Your task to perform on an android device: open app "Google Docs" (install if not already installed) Image 0: 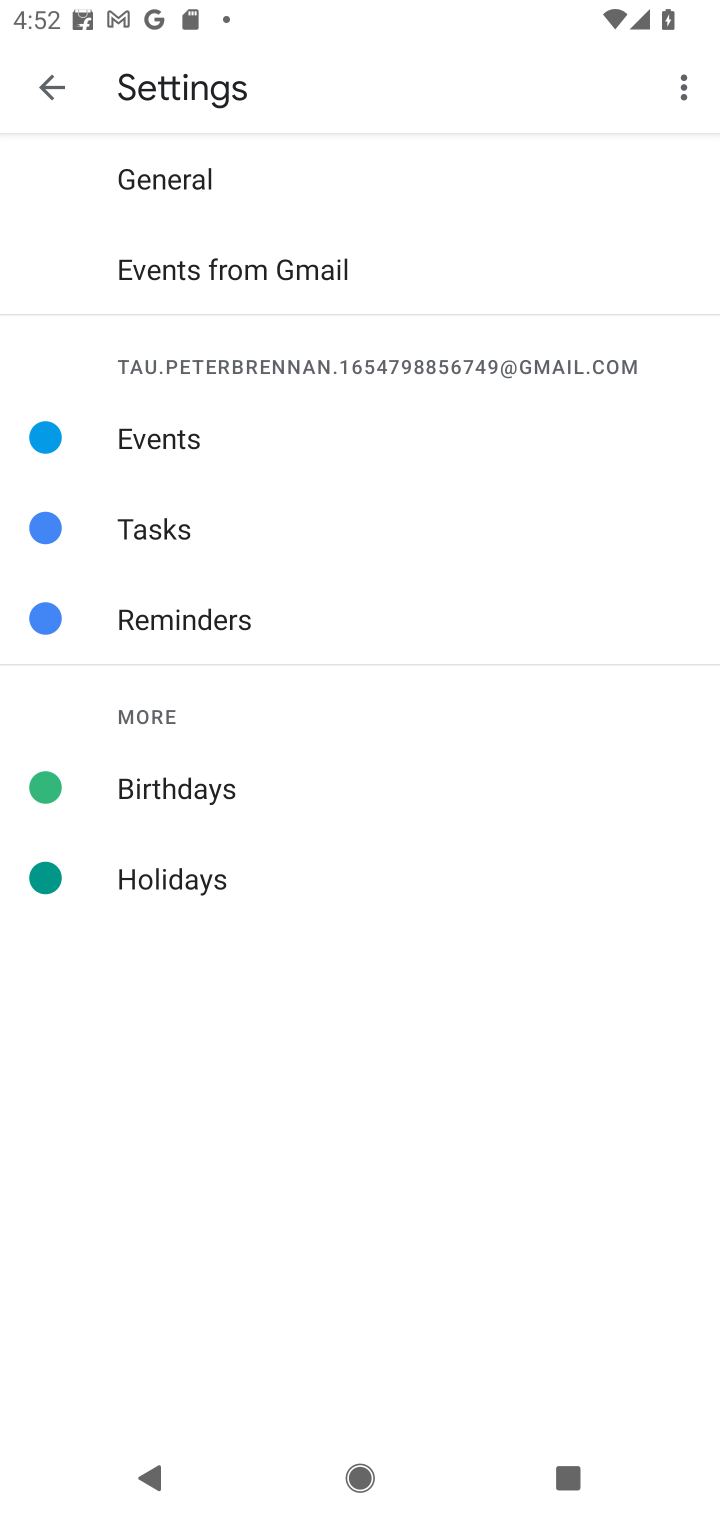
Step 0: press home button
Your task to perform on an android device: open app "Google Docs" (install if not already installed) Image 1: 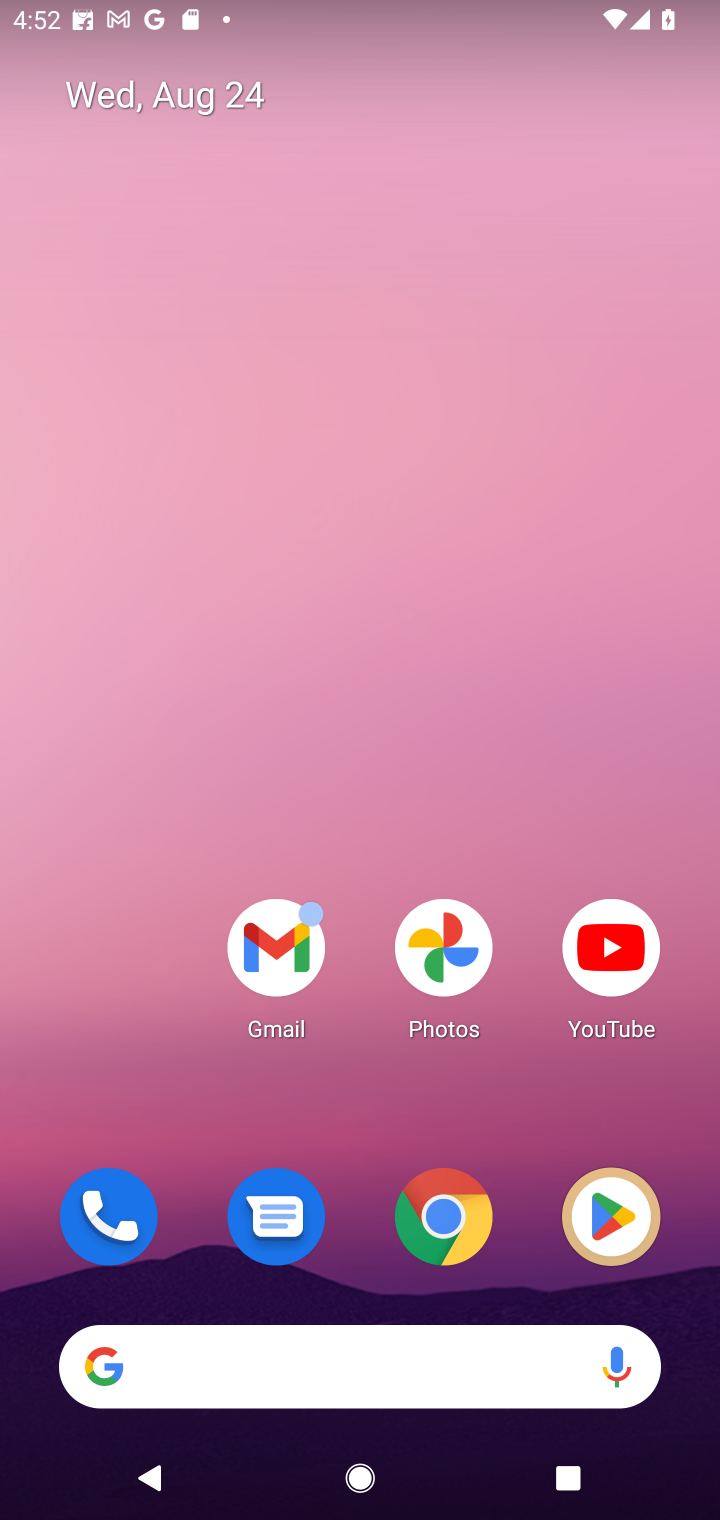
Step 1: click (604, 1238)
Your task to perform on an android device: open app "Google Docs" (install if not already installed) Image 2: 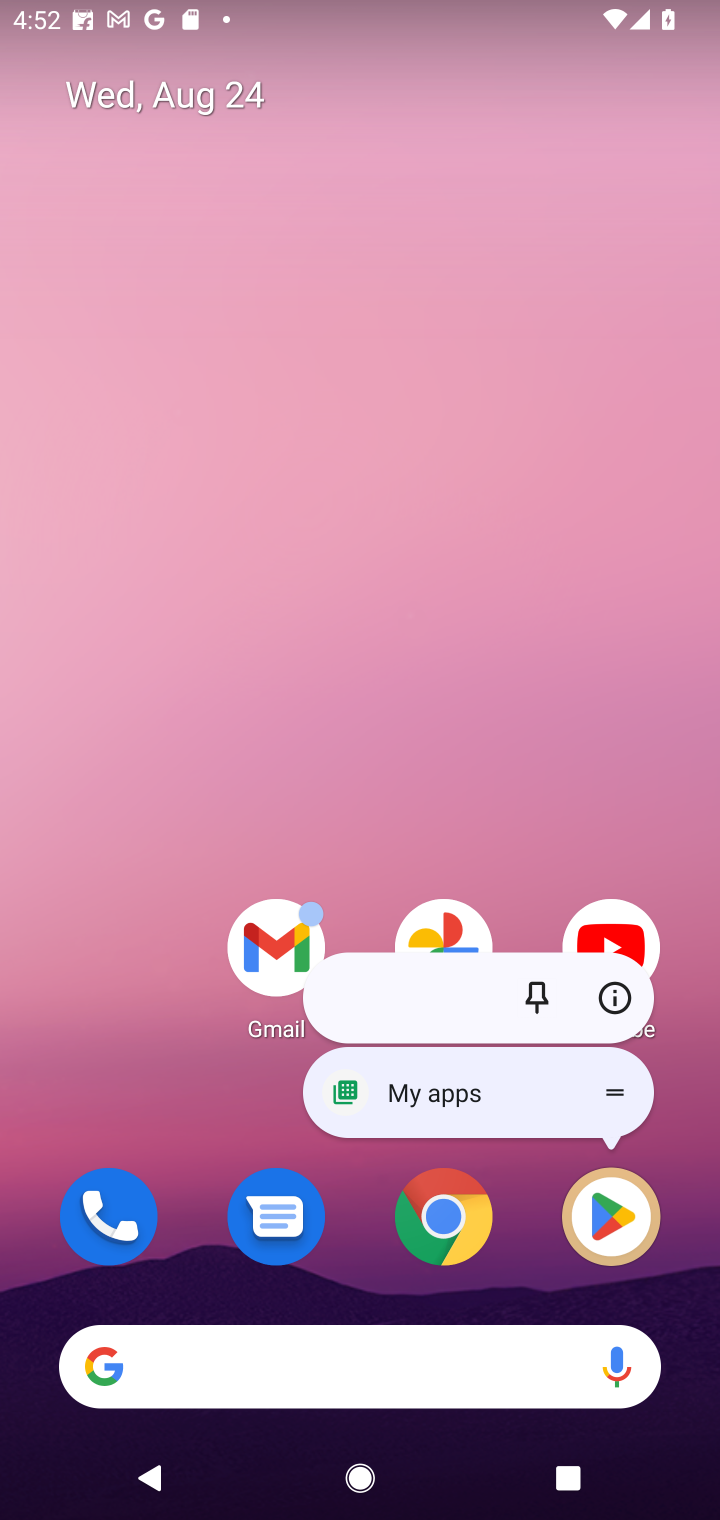
Step 2: click (647, 1233)
Your task to perform on an android device: open app "Google Docs" (install if not already installed) Image 3: 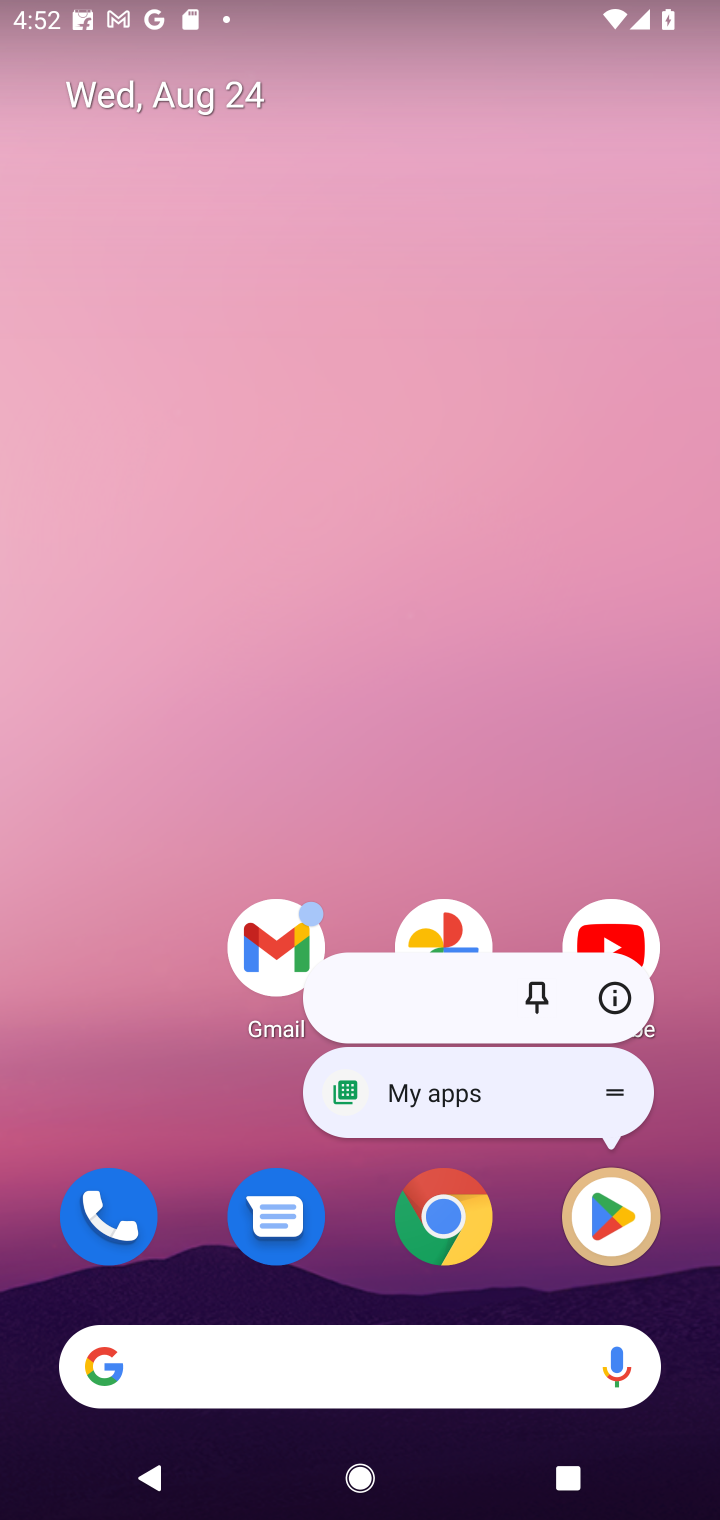
Step 3: click (602, 1215)
Your task to perform on an android device: open app "Google Docs" (install if not already installed) Image 4: 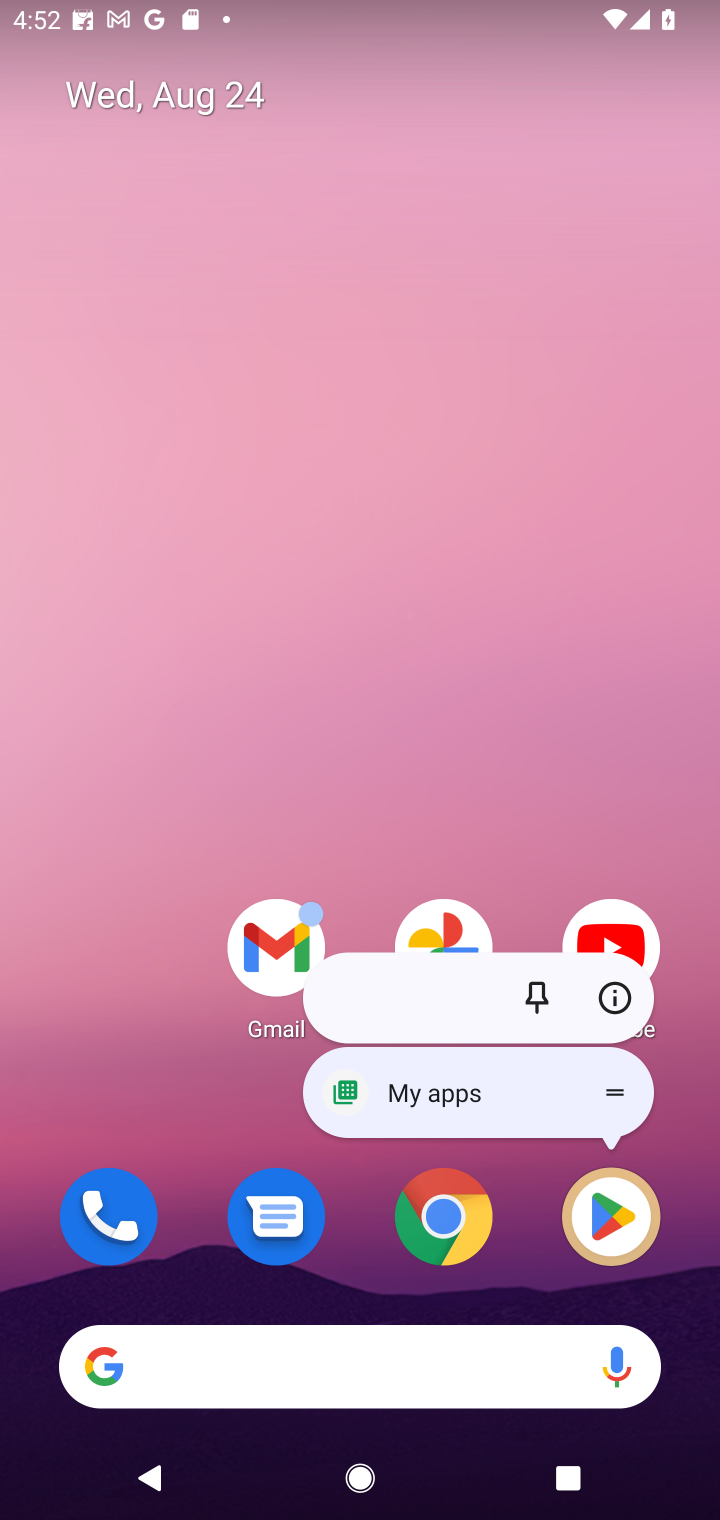
Step 4: click (602, 1215)
Your task to perform on an android device: open app "Google Docs" (install if not already installed) Image 5: 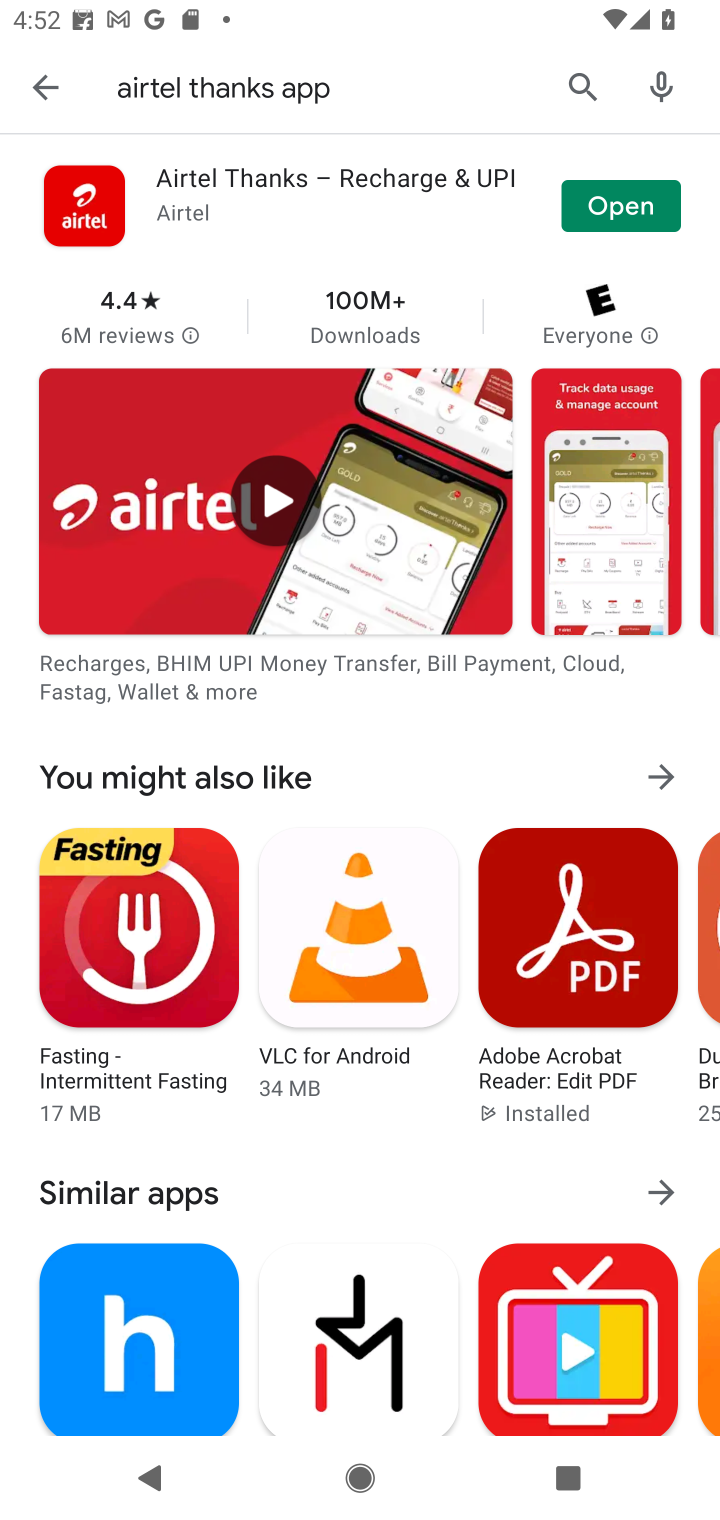
Step 5: click (581, 86)
Your task to perform on an android device: open app "Google Docs" (install if not already installed) Image 6: 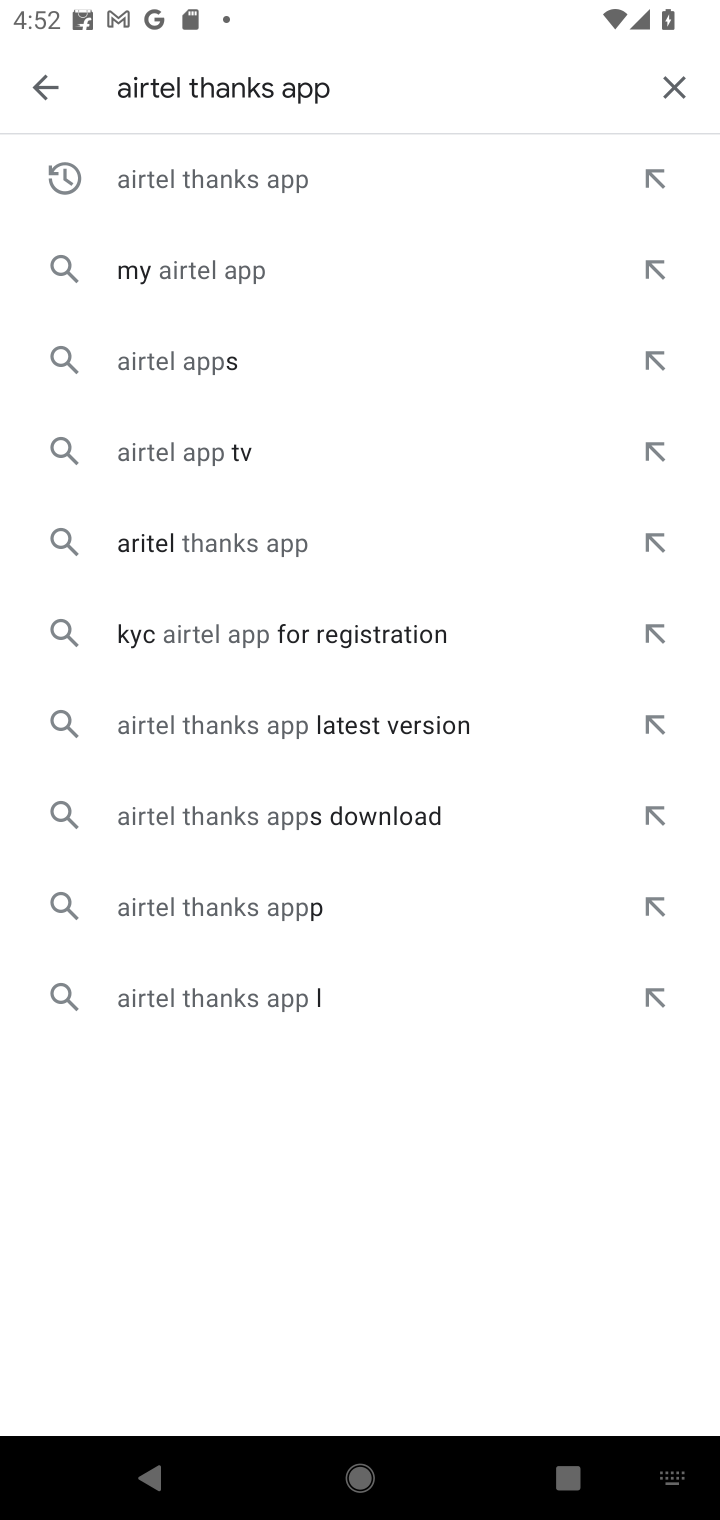
Step 6: click (656, 91)
Your task to perform on an android device: open app "Google Docs" (install if not already installed) Image 7: 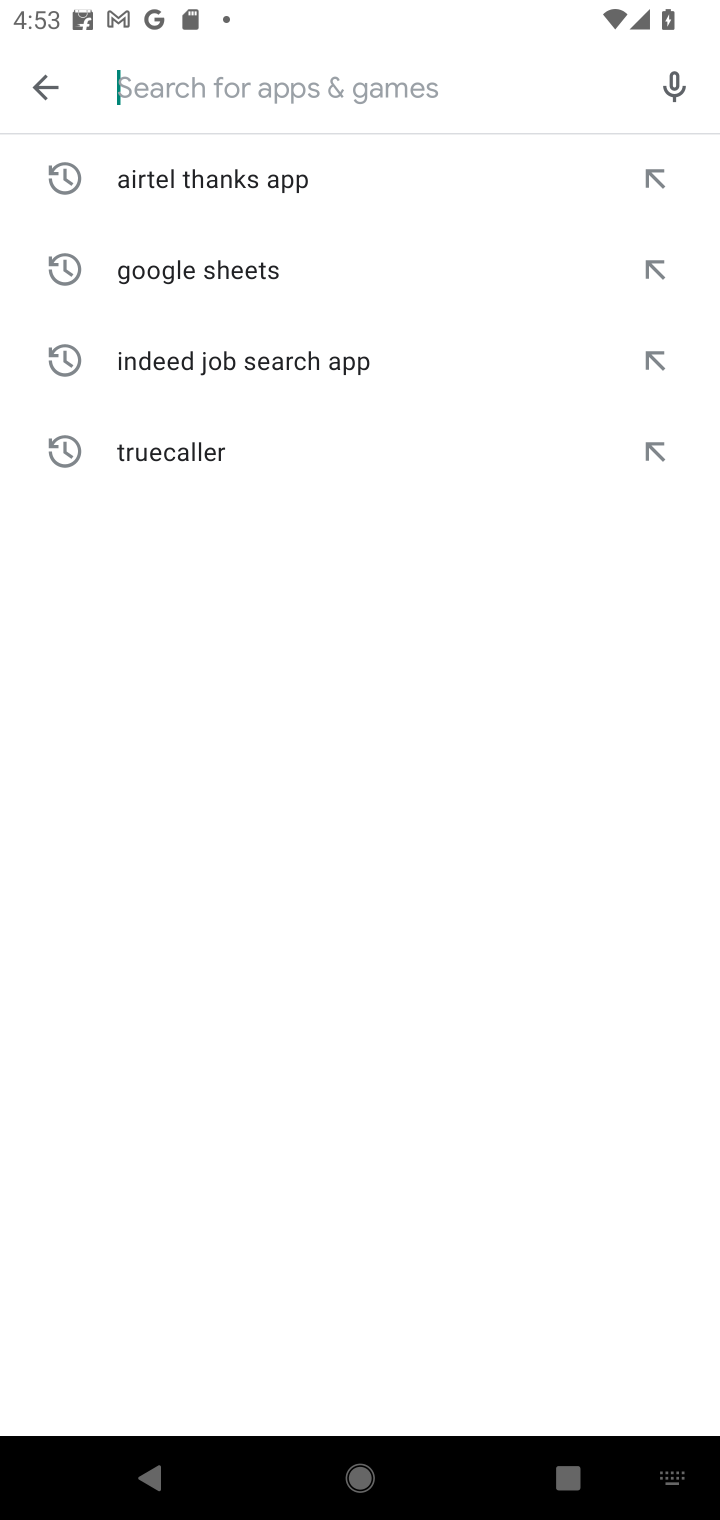
Step 7: type "Google Docs"
Your task to perform on an android device: open app "Google Docs" (install if not already installed) Image 8: 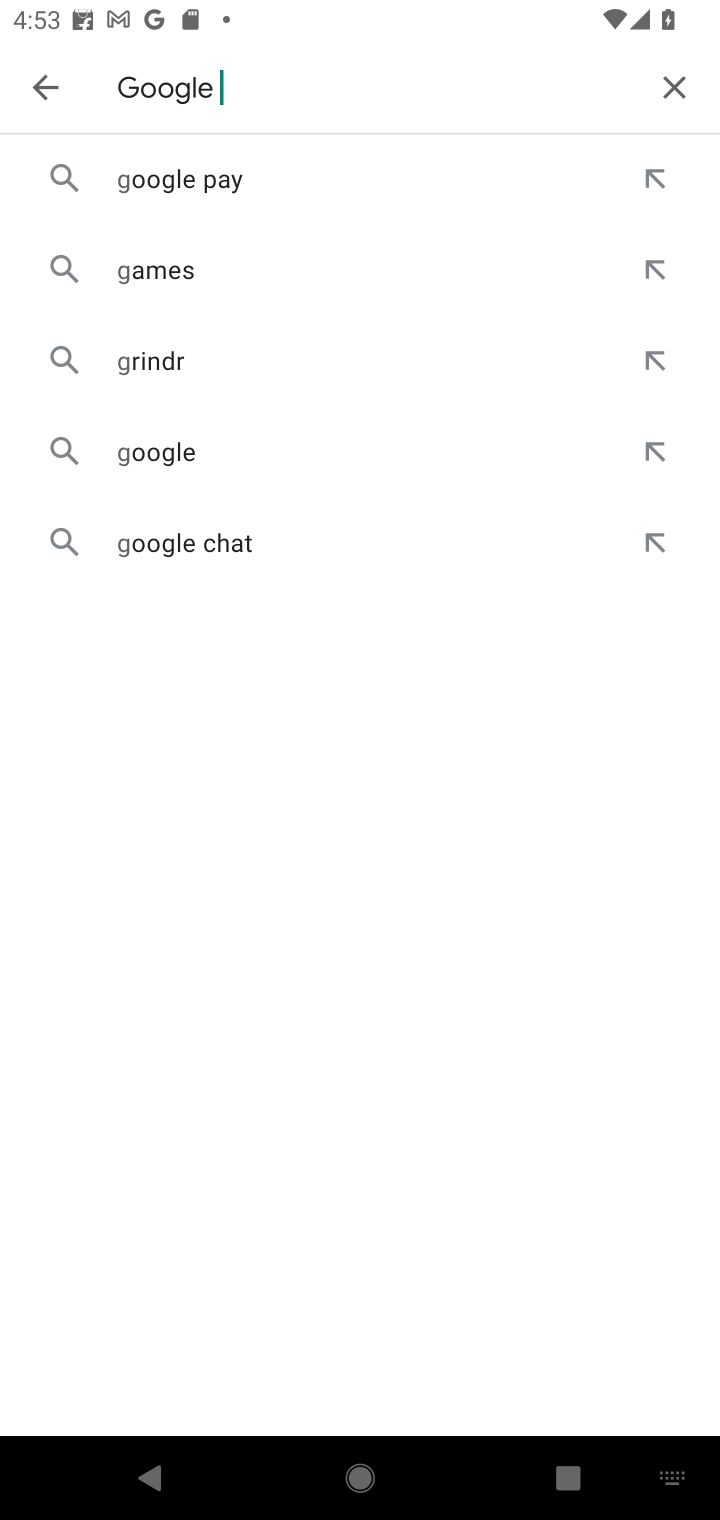
Step 8: type ""
Your task to perform on an android device: open app "Google Docs" (install if not already installed) Image 9: 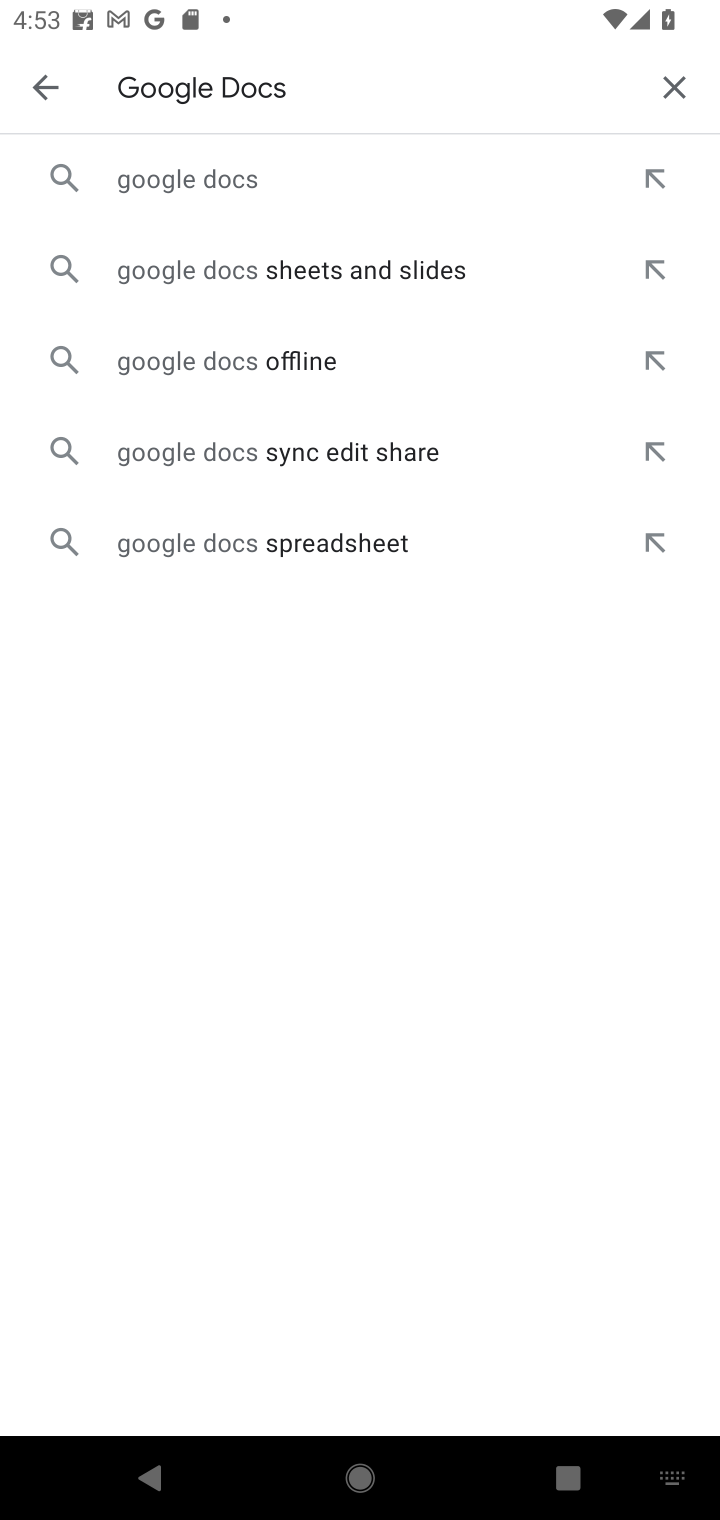
Step 9: click (339, 178)
Your task to perform on an android device: open app "Google Docs" (install if not already installed) Image 10: 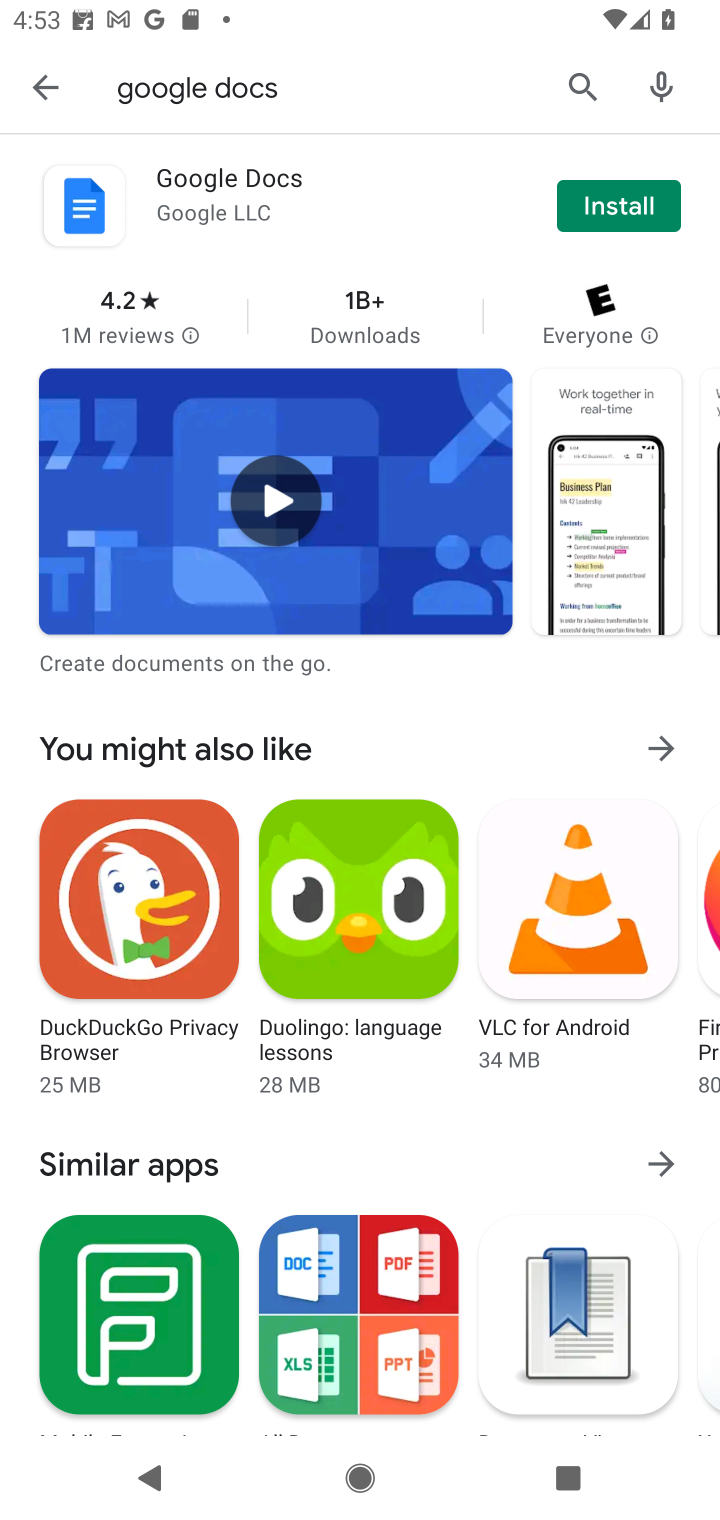
Step 10: click (648, 210)
Your task to perform on an android device: open app "Google Docs" (install if not already installed) Image 11: 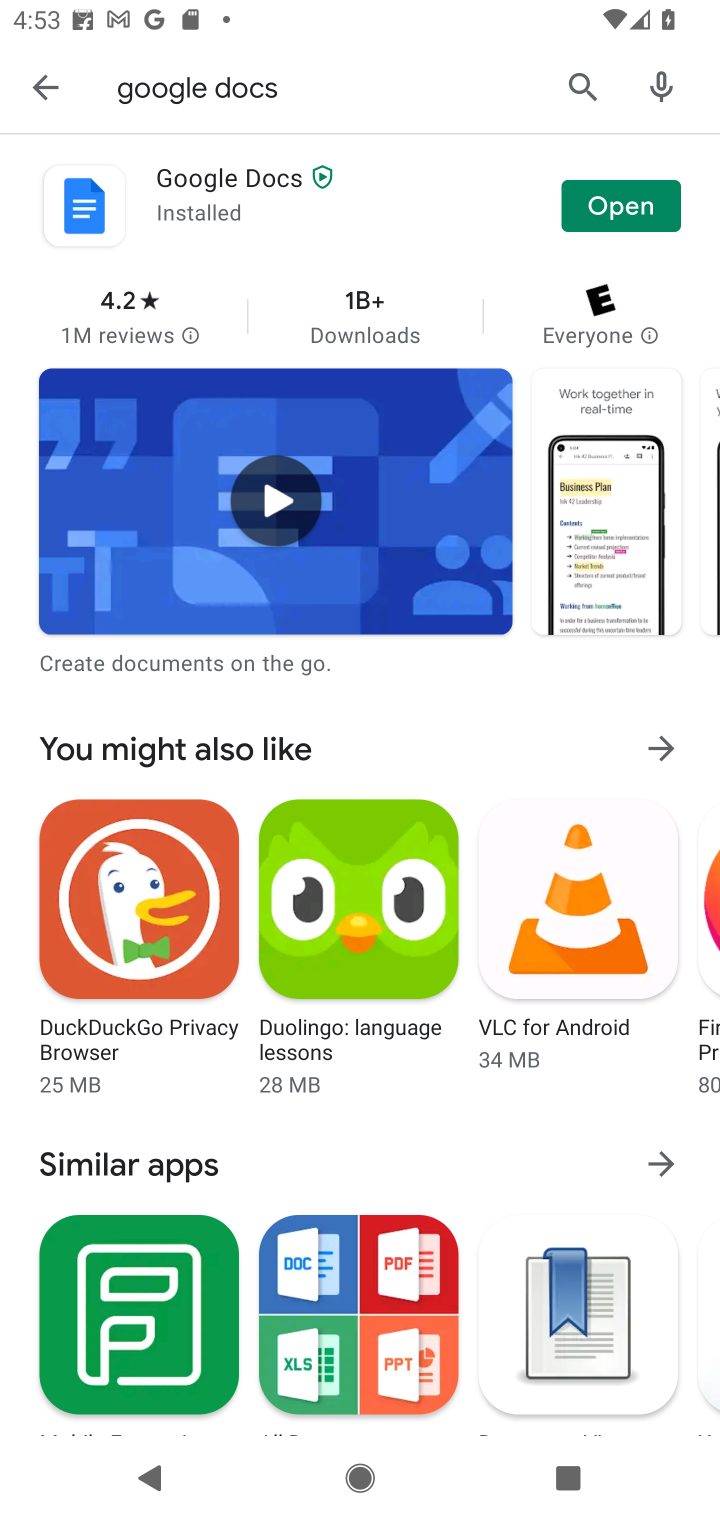
Step 11: click (636, 202)
Your task to perform on an android device: open app "Google Docs" (install if not already installed) Image 12: 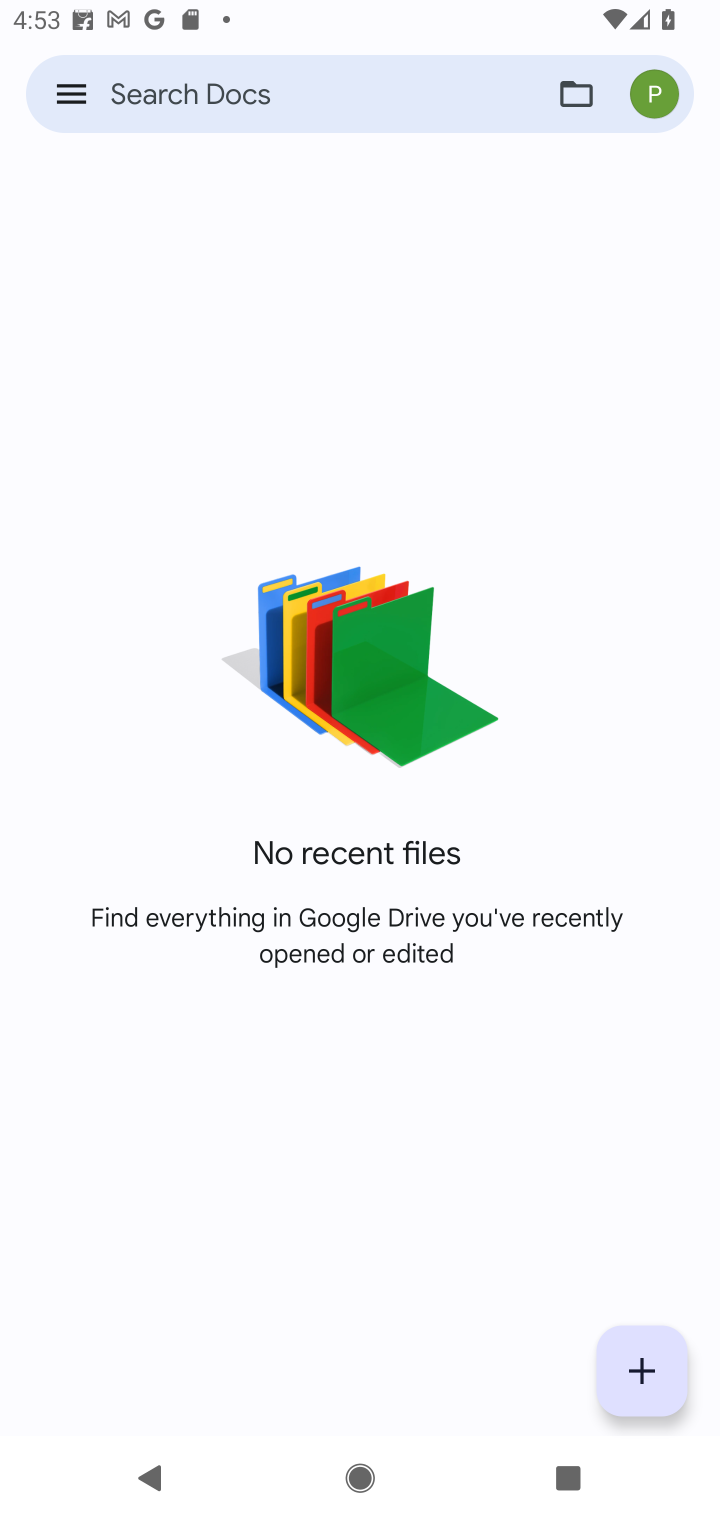
Step 12: task complete